Your task to perform on an android device: Open Wikipedia Image 0: 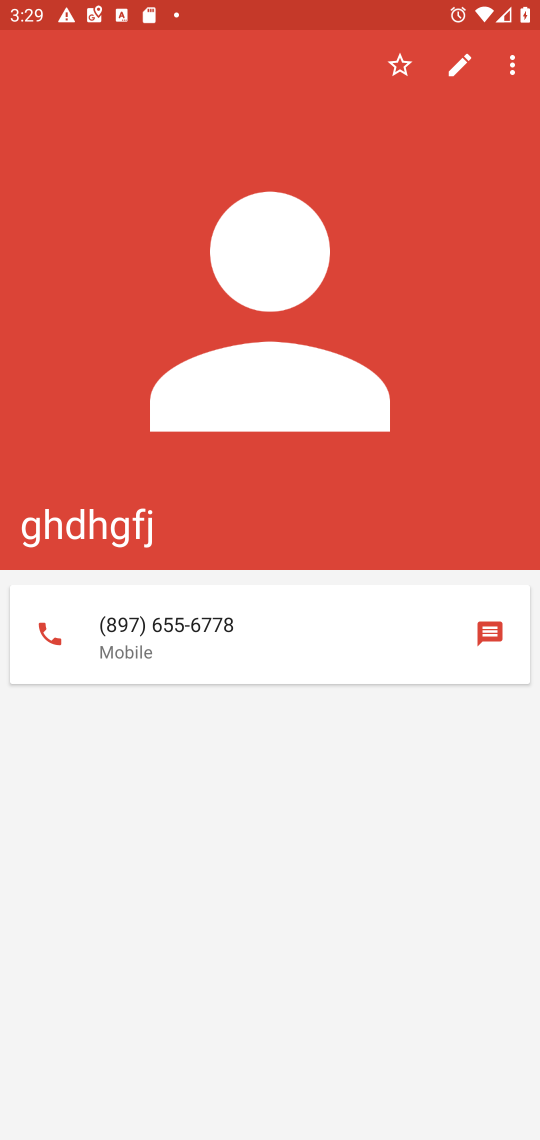
Step 0: press home button
Your task to perform on an android device: Open Wikipedia Image 1: 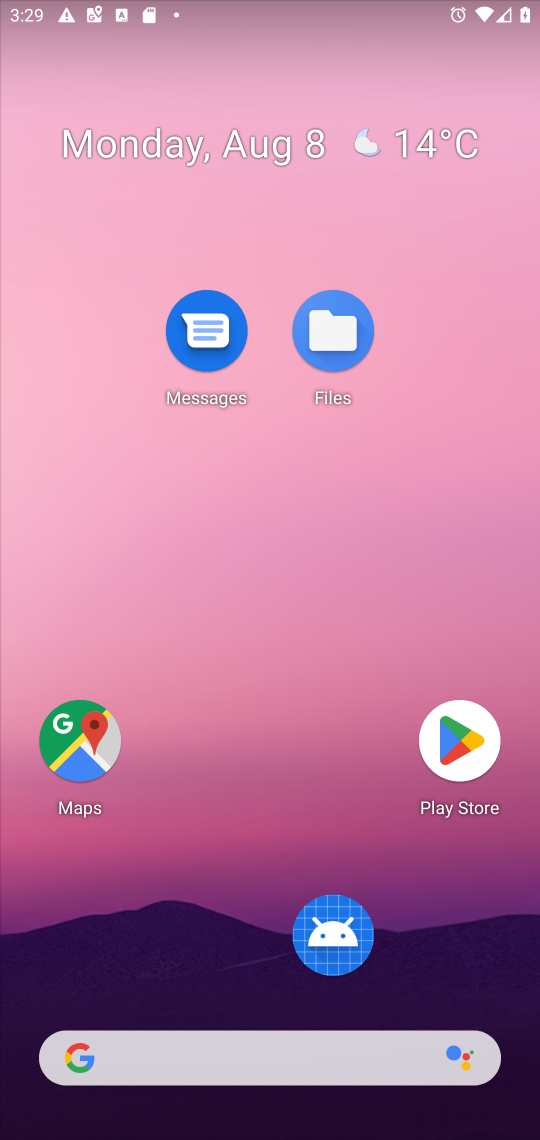
Step 1: drag from (302, 1055) to (322, 173)
Your task to perform on an android device: Open Wikipedia Image 2: 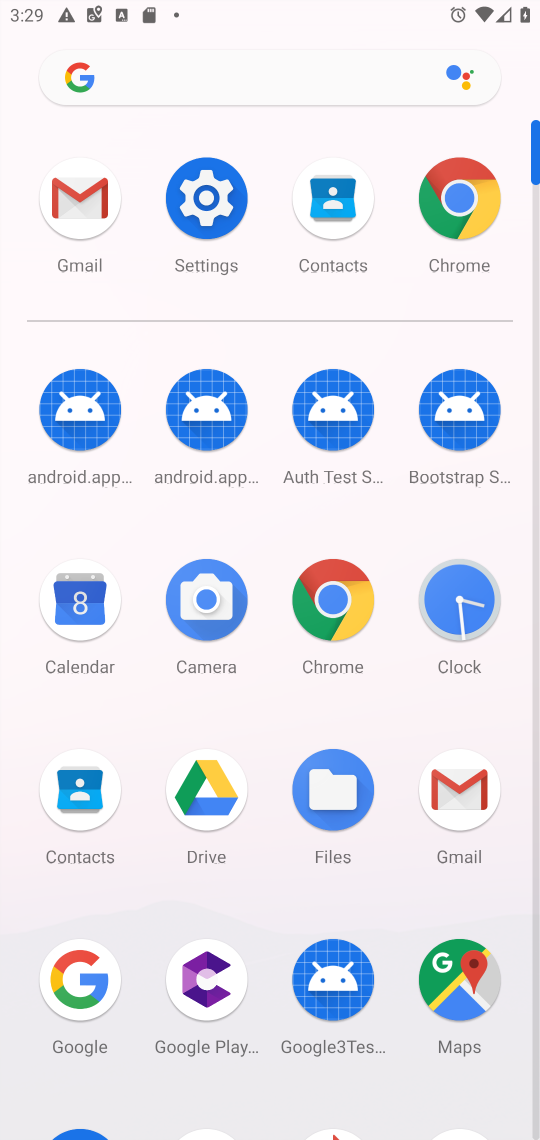
Step 2: click (326, 626)
Your task to perform on an android device: Open Wikipedia Image 3: 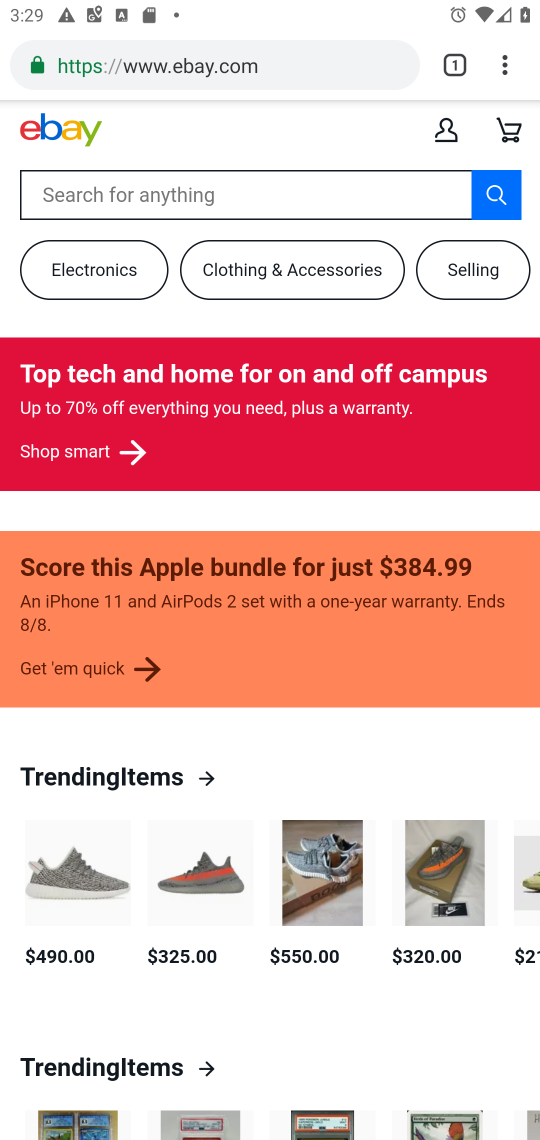
Step 3: click (257, 61)
Your task to perform on an android device: Open Wikipedia Image 4: 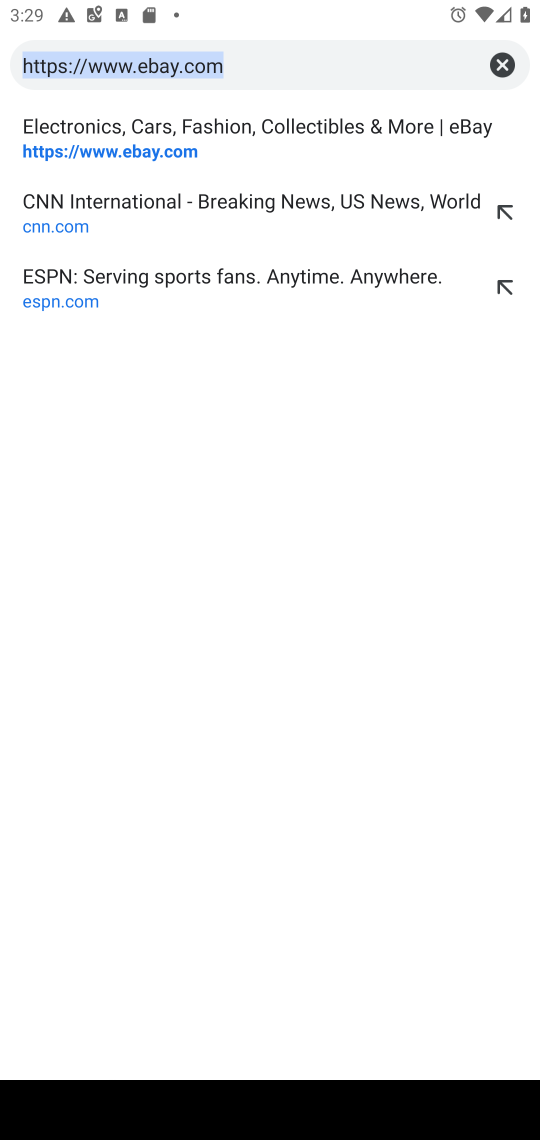
Step 4: type "wikipedia"
Your task to perform on an android device: Open Wikipedia Image 5: 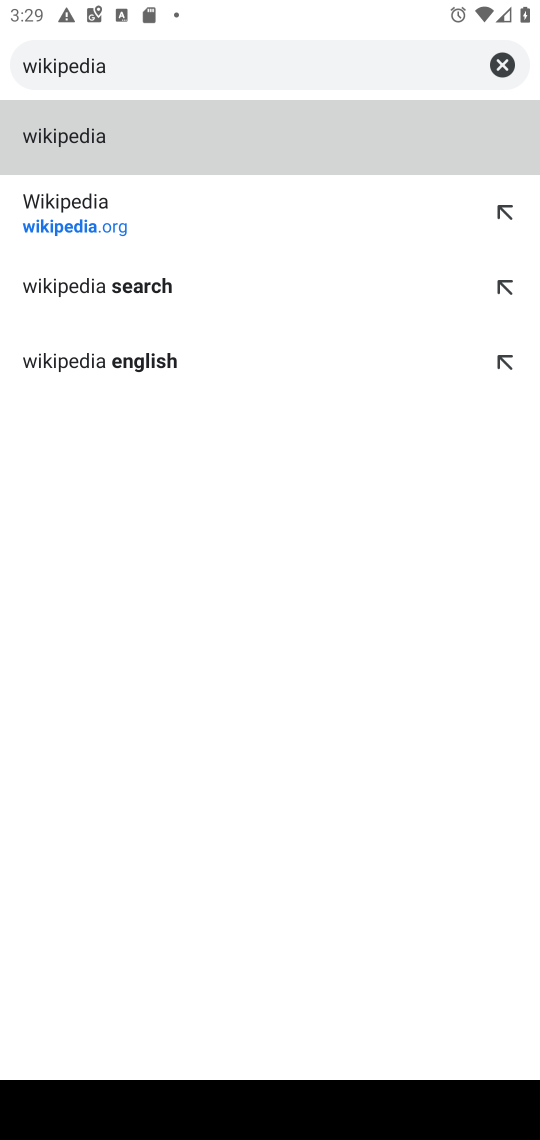
Step 5: click (155, 232)
Your task to perform on an android device: Open Wikipedia Image 6: 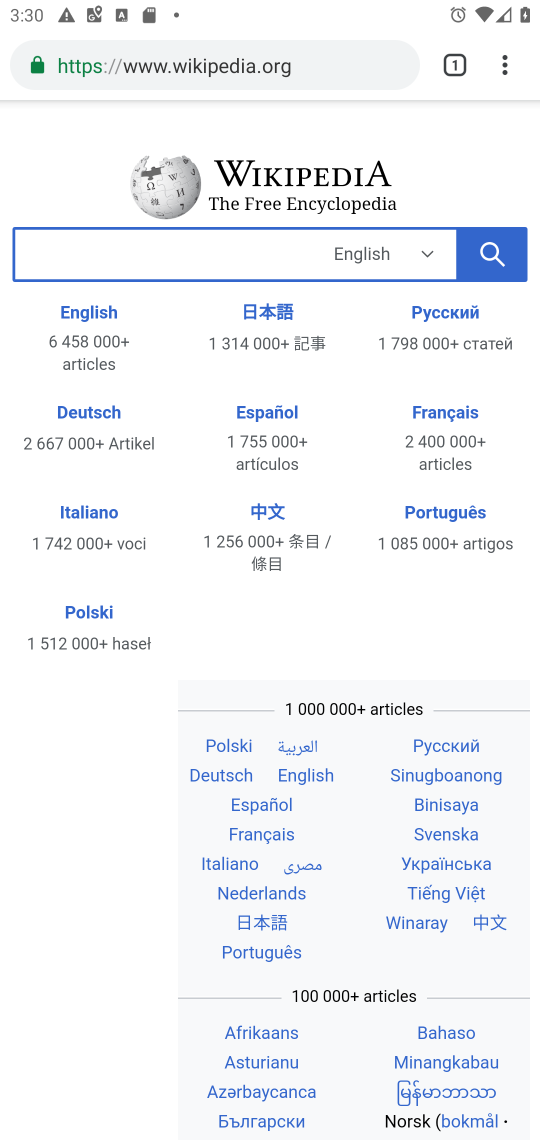
Step 6: task complete